Your task to perform on an android device: Go to calendar. Show me events next week Image 0: 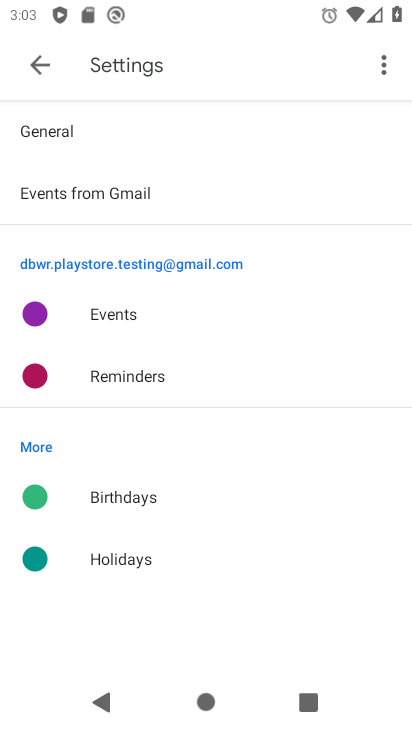
Step 0: press home button
Your task to perform on an android device: Go to calendar. Show me events next week Image 1: 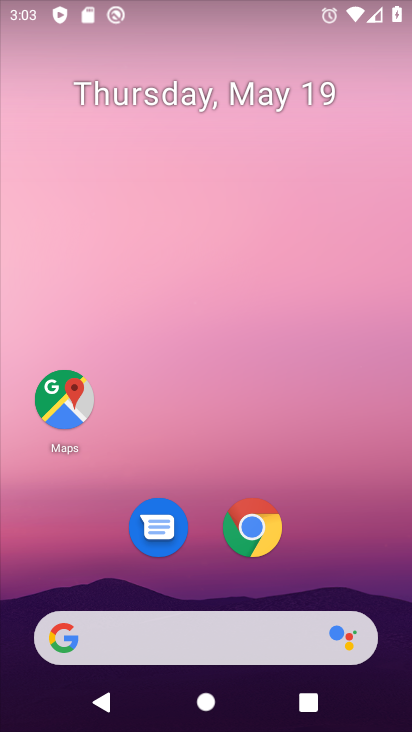
Step 1: drag from (173, 600) to (304, 53)
Your task to perform on an android device: Go to calendar. Show me events next week Image 2: 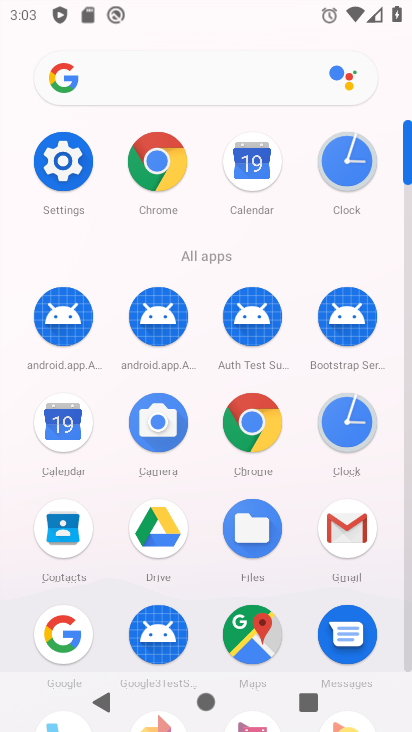
Step 2: click (61, 434)
Your task to perform on an android device: Go to calendar. Show me events next week Image 3: 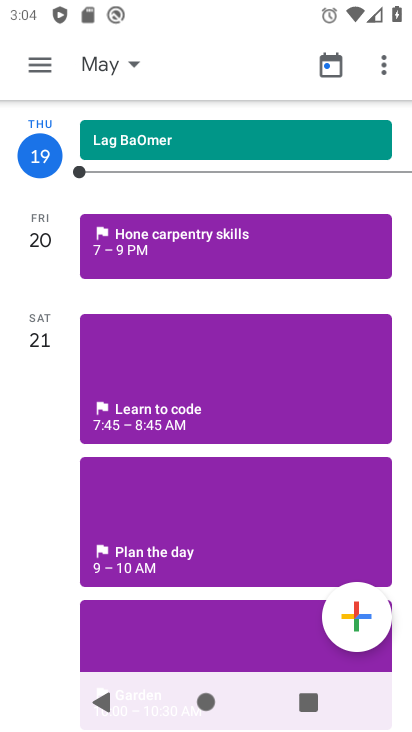
Step 3: click (109, 70)
Your task to perform on an android device: Go to calendar. Show me events next week Image 4: 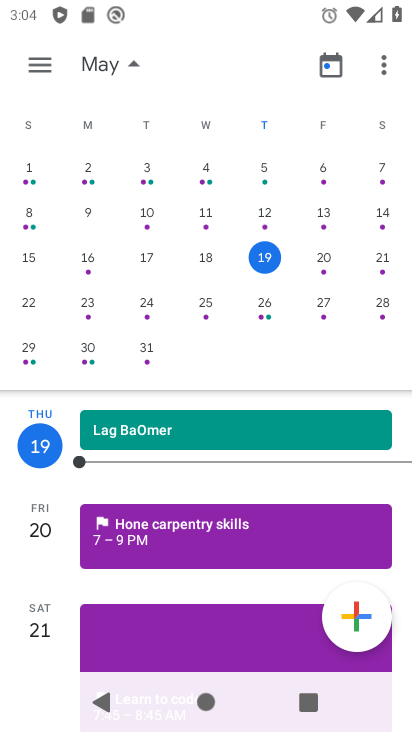
Step 4: click (79, 298)
Your task to perform on an android device: Go to calendar. Show me events next week Image 5: 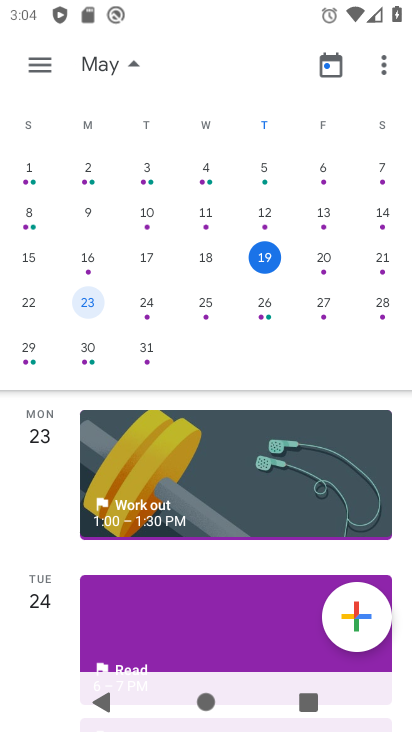
Step 5: drag from (156, 610) to (266, 159)
Your task to perform on an android device: Go to calendar. Show me events next week Image 6: 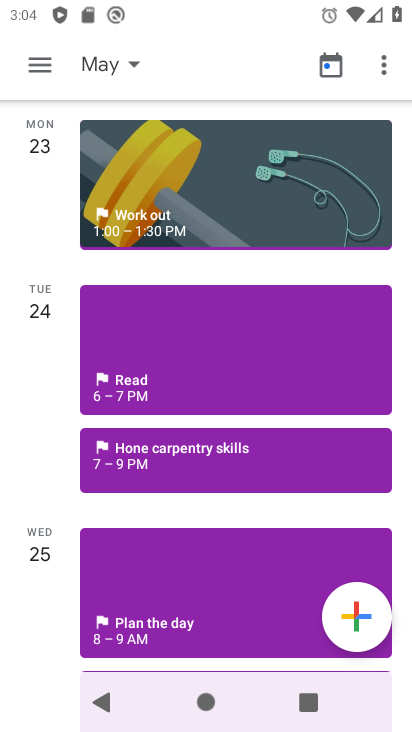
Step 6: click (166, 580)
Your task to perform on an android device: Go to calendar. Show me events next week Image 7: 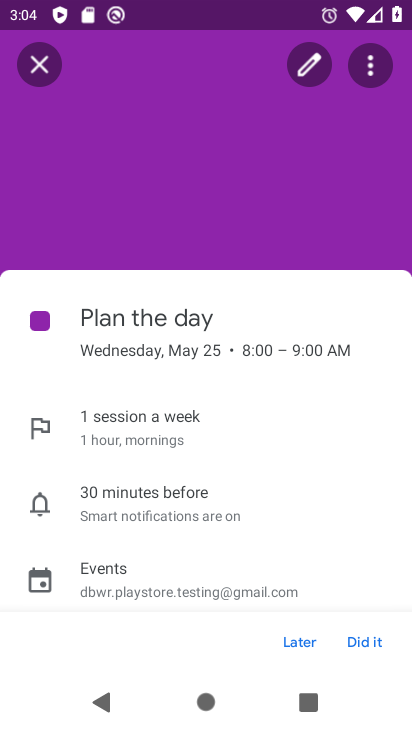
Step 7: task complete